Your task to perform on an android device: search for starred emails in the gmail app Image 0: 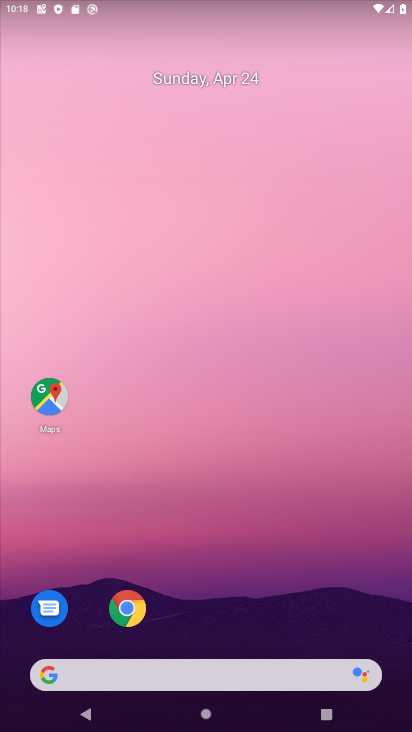
Step 0: drag from (259, 694) to (252, 27)
Your task to perform on an android device: search for starred emails in the gmail app Image 1: 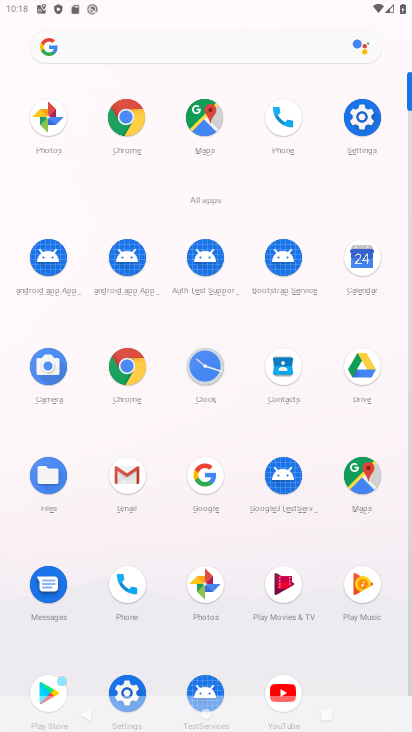
Step 1: click (144, 472)
Your task to perform on an android device: search for starred emails in the gmail app Image 2: 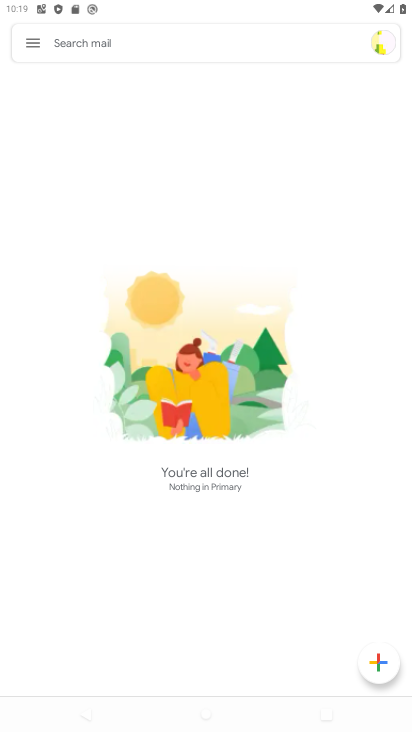
Step 2: click (34, 45)
Your task to perform on an android device: search for starred emails in the gmail app Image 3: 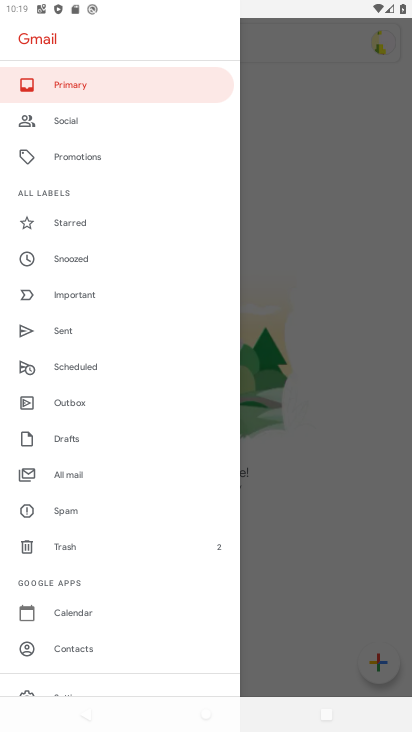
Step 3: click (88, 220)
Your task to perform on an android device: search for starred emails in the gmail app Image 4: 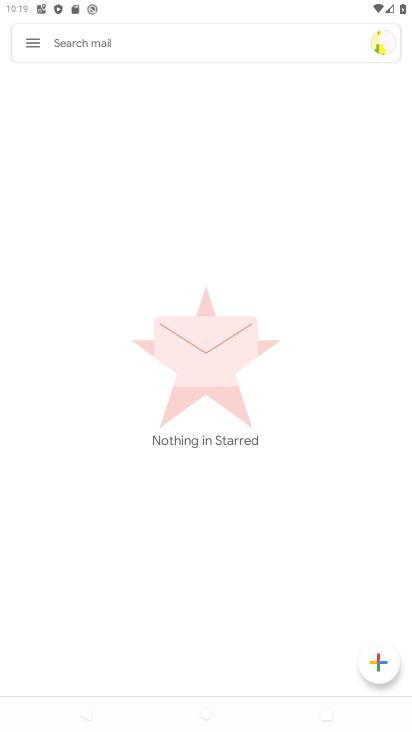
Step 4: task complete